Your task to perform on an android device: open app "Speedtest by Ookla" (install if not already installed) Image 0: 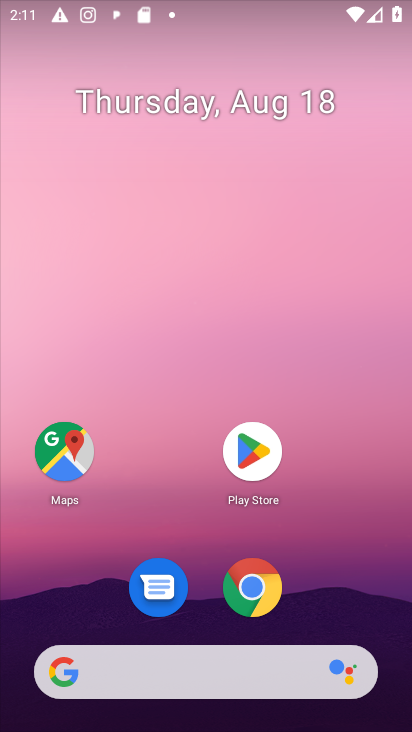
Step 0: click (259, 441)
Your task to perform on an android device: open app "Speedtest by Ookla" (install if not already installed) Image 1: 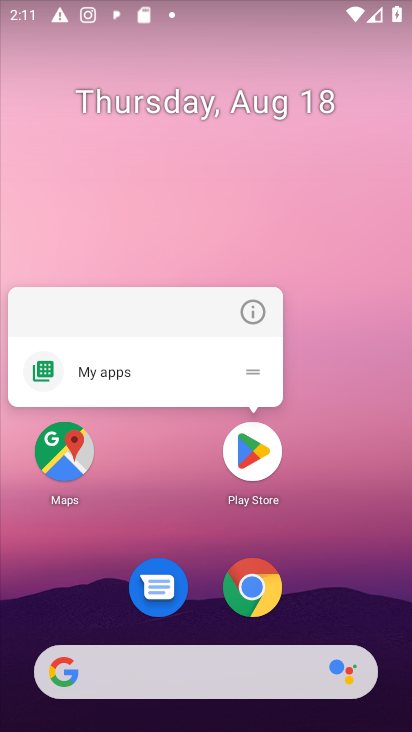
Step 1: click (249, 455)
Your task to perform on an android device: open app "Speedtest by Ookla" (install if not already installed) Image 2: 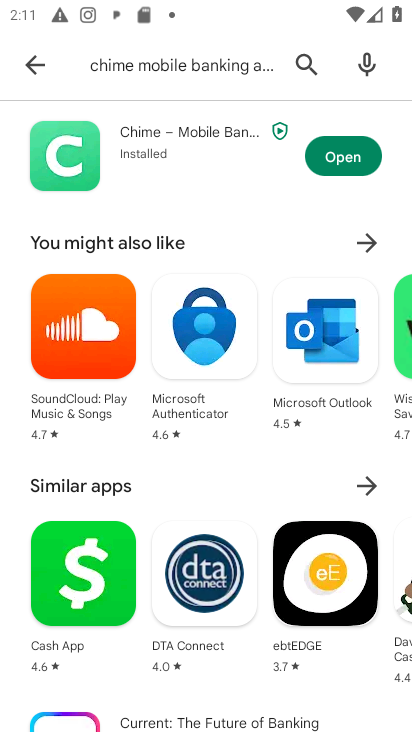
Step 2: click (302, 65)
Your task to perform on an android device: open app "Speedtest by Ookla" (install if not already installed) Image 3: 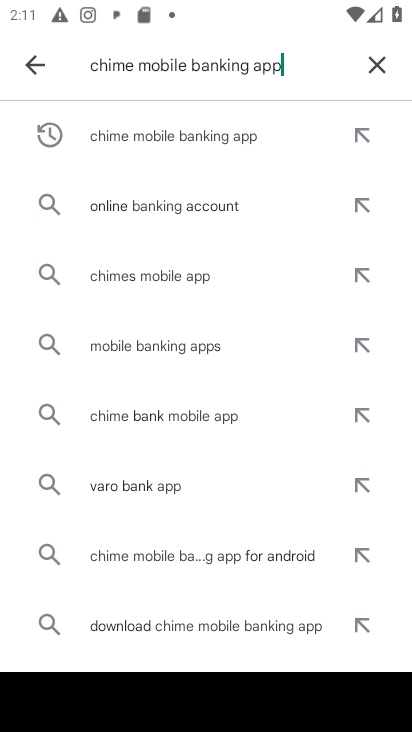
Step 3: click (383, 70)
Your task to perform on an android device: open app "Speedtest by Ookla" (install if not already installed) Image 4: 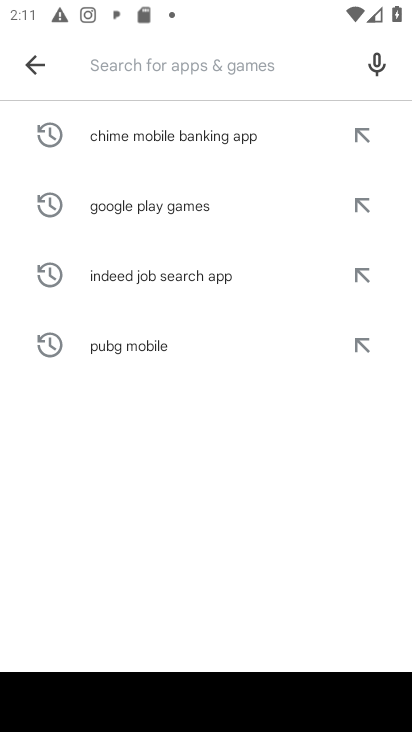
Step 4: type "Speedtest by Ookla"
Your task to perform on an android device: open app "Speedtest by Ookla" (install if not already installed) Image 5: 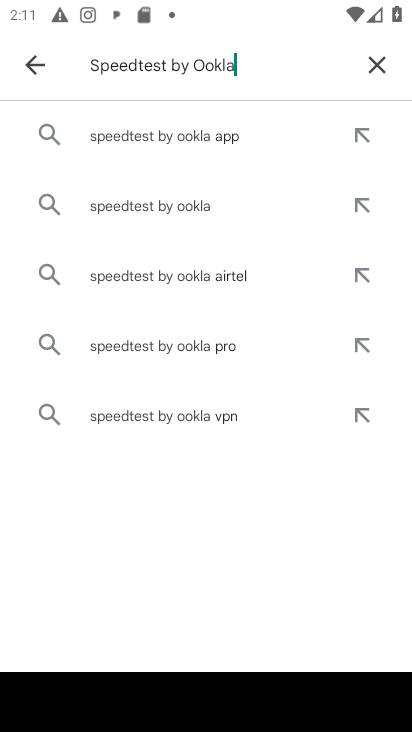
Step 5: click (155, 135)
Your task to perform on an android device: open app "Speedtest by Ookla" (install if not already installed) Image 6: 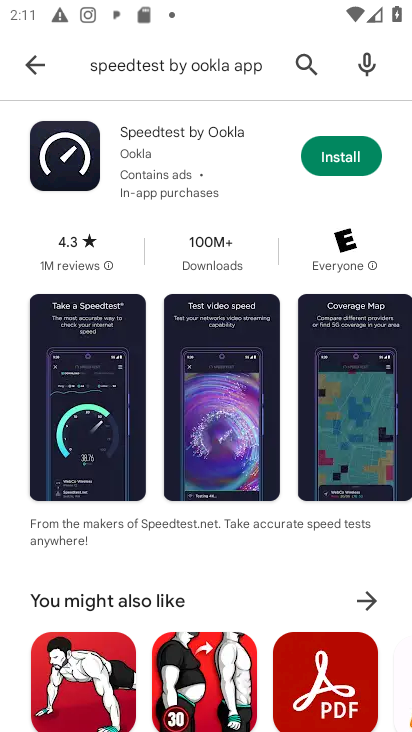
Step 6: click (336, 160)
Your task to perform on an android device: open app "Speedtest by Ookla" (install if not already installed) Image 7: 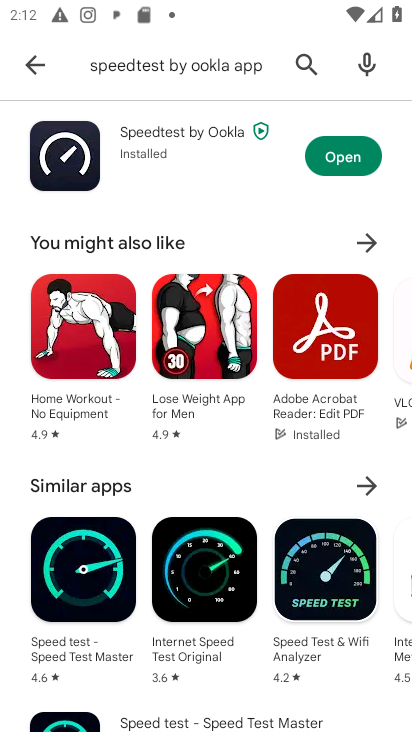
Step 7: click (363, 158)
Your task to perform on an android device: open app "Speedtest by Ookla" (install if not already installed) Image 8: 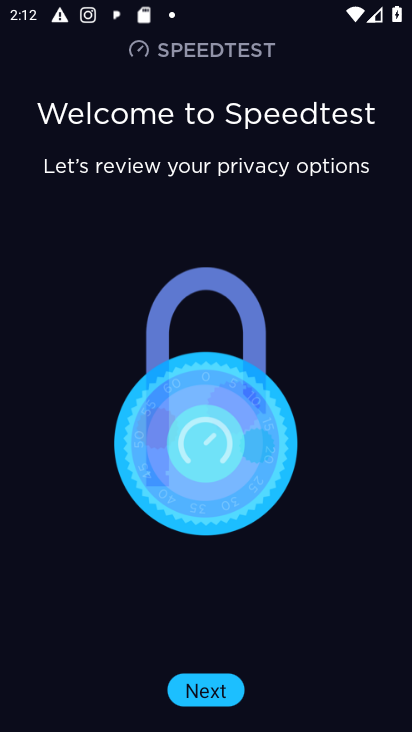
Step 8: task complete